Your task to perform on an android device: open wifi settings Image 0: 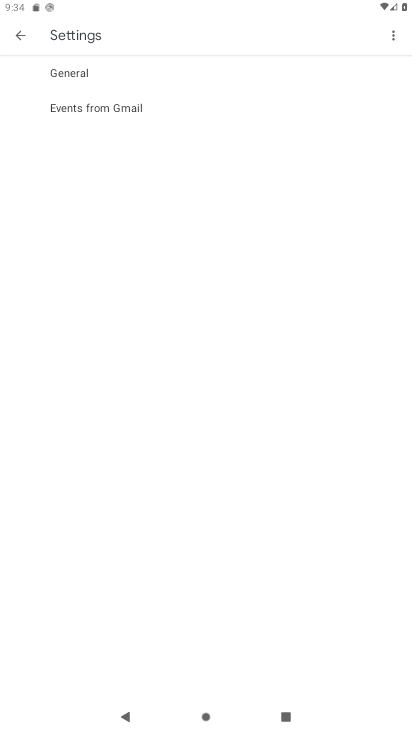
Step 0: press home button
Your task to perform on an android device: open wifi settings Image 1: 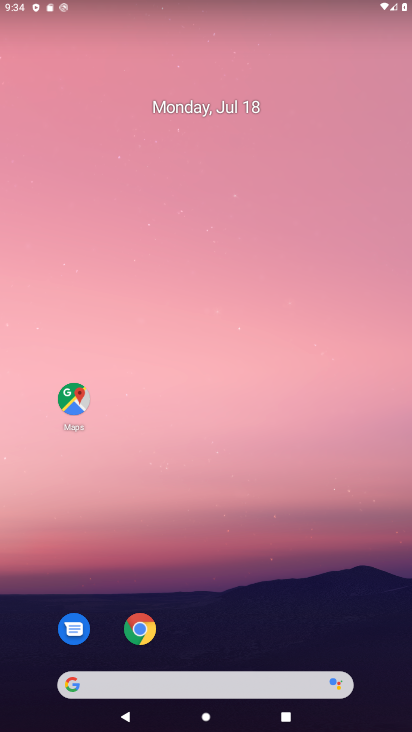
Step 1: drag from (238, 579) to (296, 6)
Your task to perform on an android device: open wifi settings Image 2: 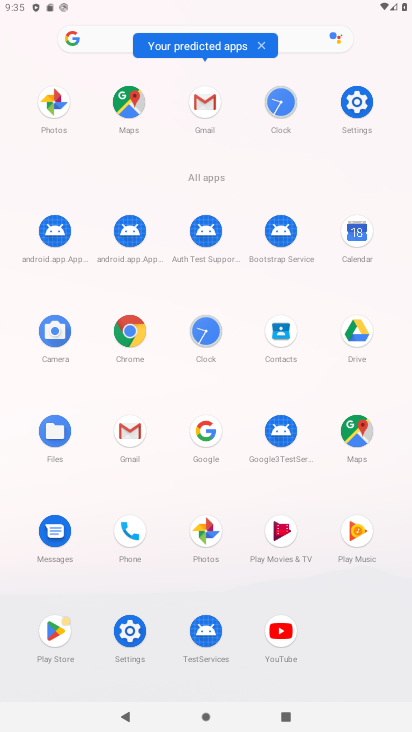
Step 2: click (361, 103)
Your task to perform on an android device: open wifi settings Image 3: 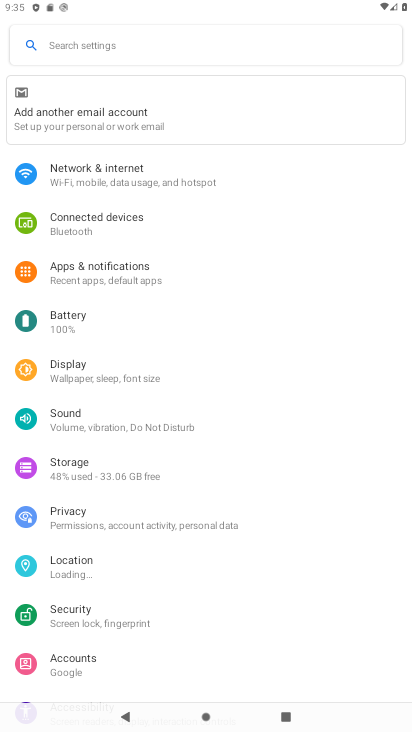
Step 3: click (105, 183)
Your task to perform on an android device: open wifi settings Image 4: 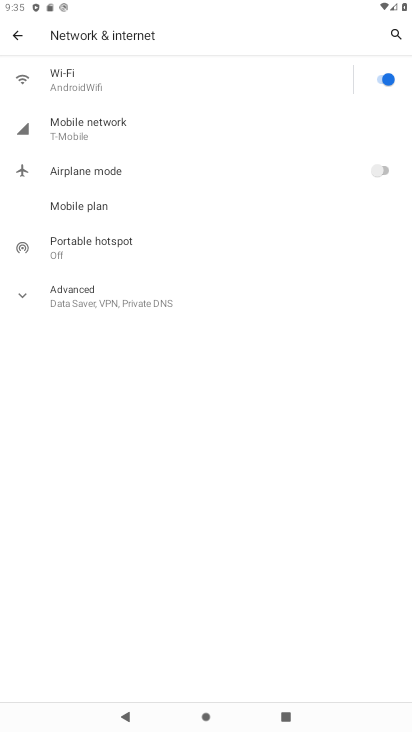
Step 4: click (229, 84)
Your task to perform on an android device: open wifi settings Image 5: 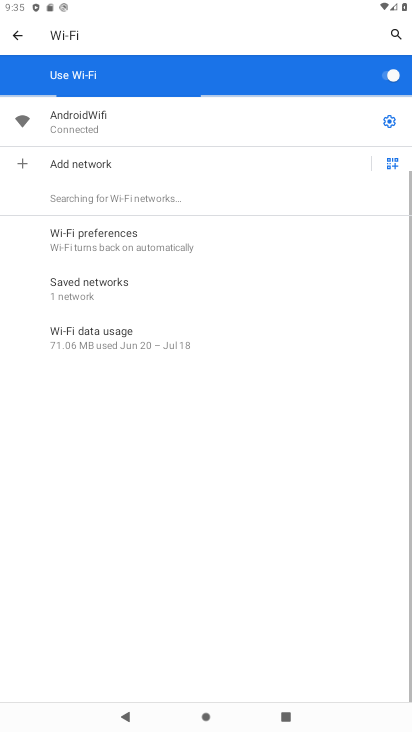
Step 5: task complete